Your task to perform on an android device: turn off improve location accuracy Image 0: 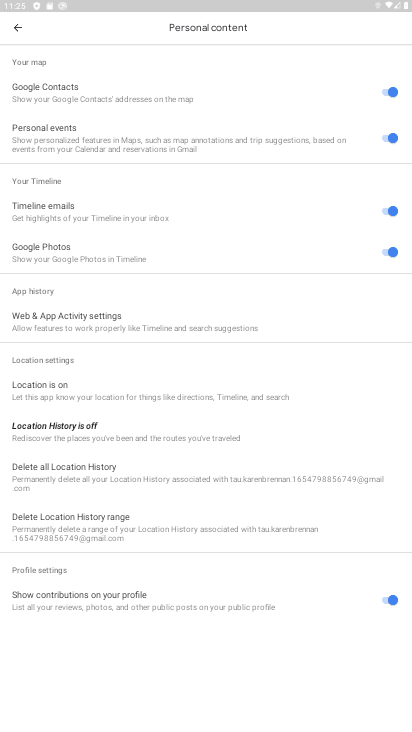
Step 0: press home button
Your task to perform on an android device: turn off improve location accuracy Image 1: 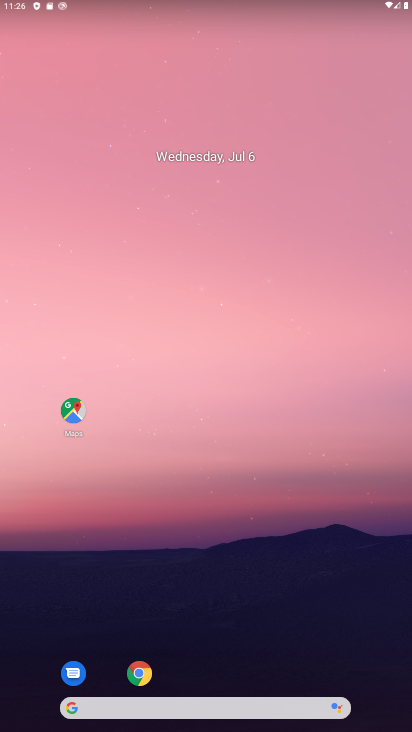
Step 1: drag from (207, 545) to (108, 101)
Your task to perform on an android device: turn off improve location accuracy Image 2: 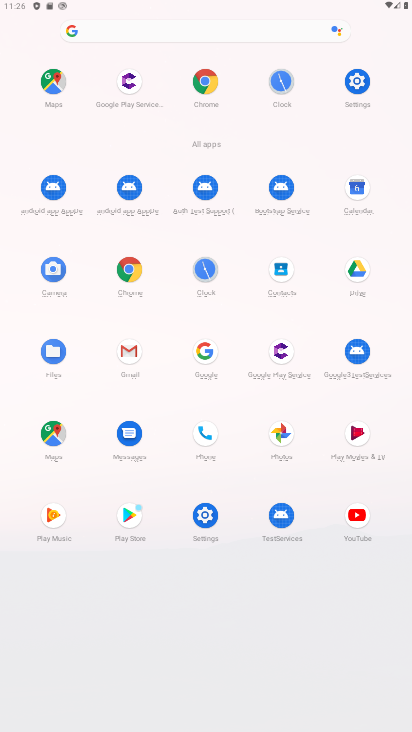
Step 2: click (363, 77)
Your task to perform on an android device: turn off improve location accuracy Image 3: 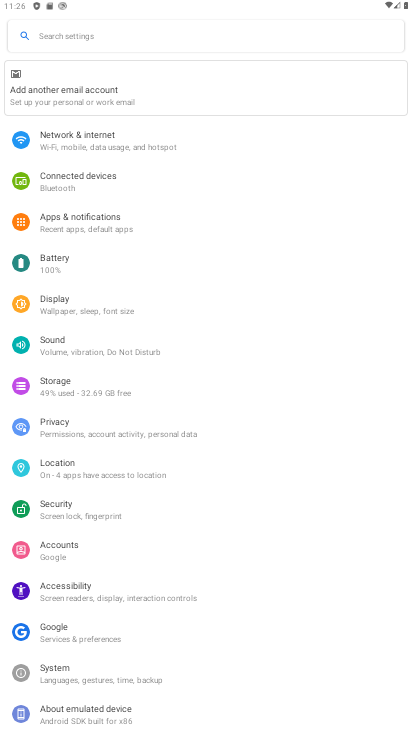
Step 3: click (68, 463)
Your task to perform on an android device: turn off improve location accuracy Image 4: 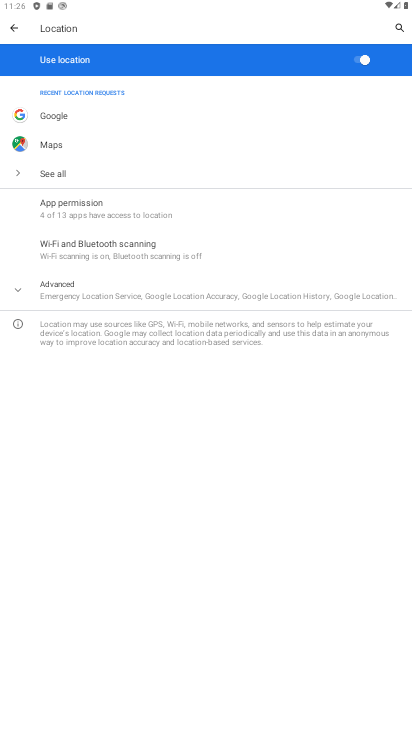
Step 4: click (24, 288)
Your task to perform on an android device: turn off improve location accuracy Image 5: 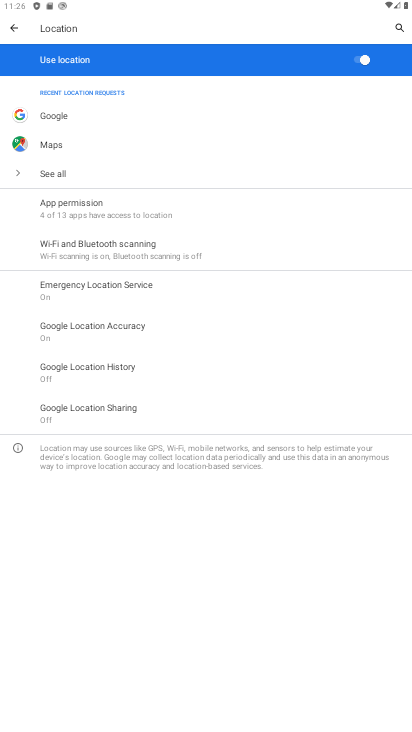
Step 5: click (100, 324)
Your task to perform on an android device: turn off improve location accuracy Image 6: 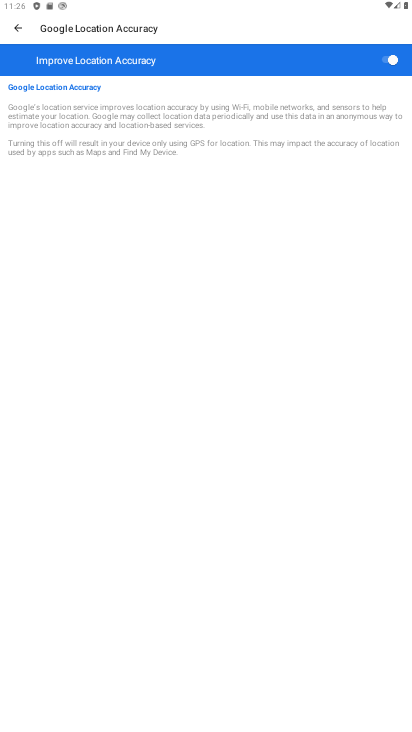
Step 6: click (392, 59)
Your task to perform on an android device: turn off improve location accuracy Image 7: 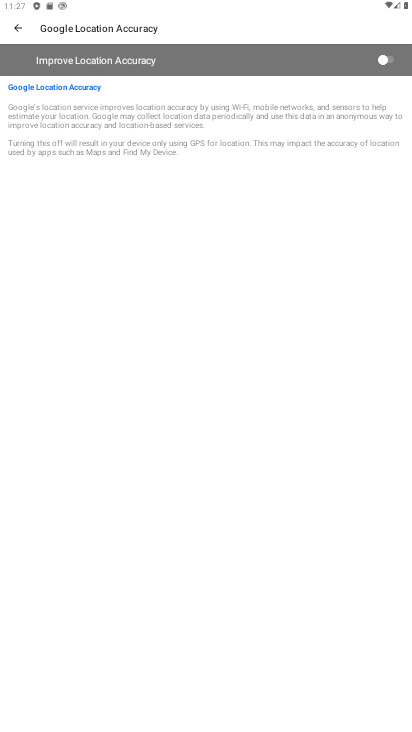
Step 7: task complete